Your task to perform on an android device: Show me popular videos on Youtube Image 0: 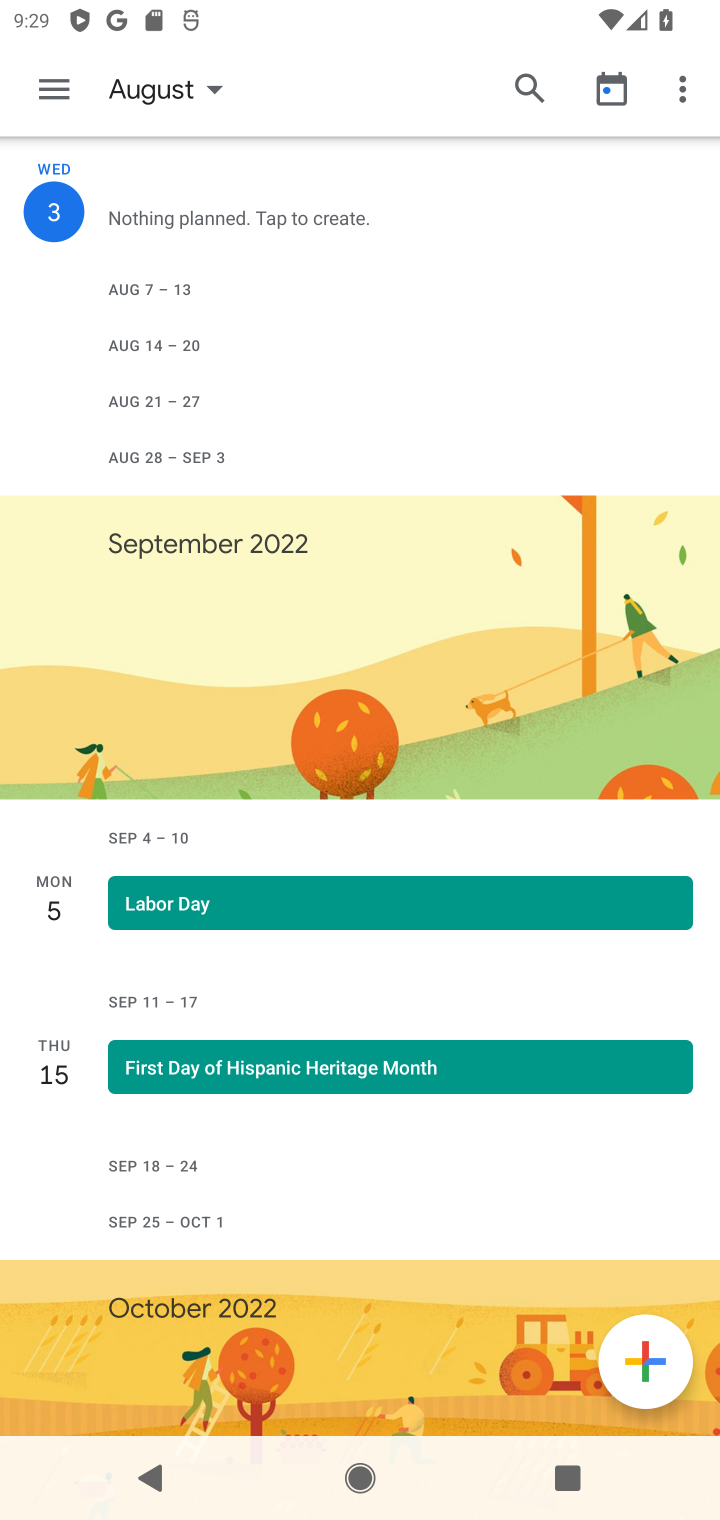
Step 0: press back button
Your task to perform on an android device: Show me popular videos on Youtube Image 1: 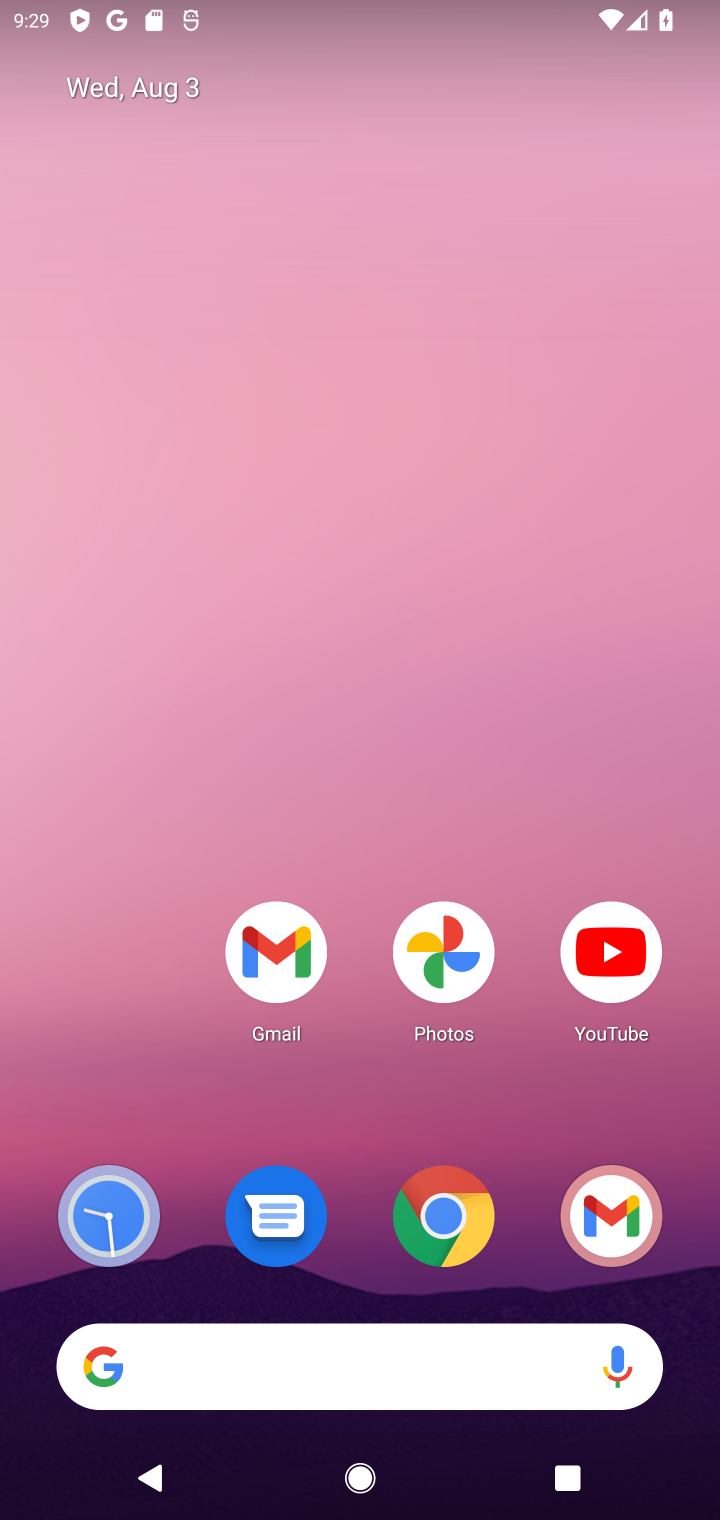
Step 1: click (632, 925)
Your task to perform on an android device: Show me popular videos on Youtube Image 2: 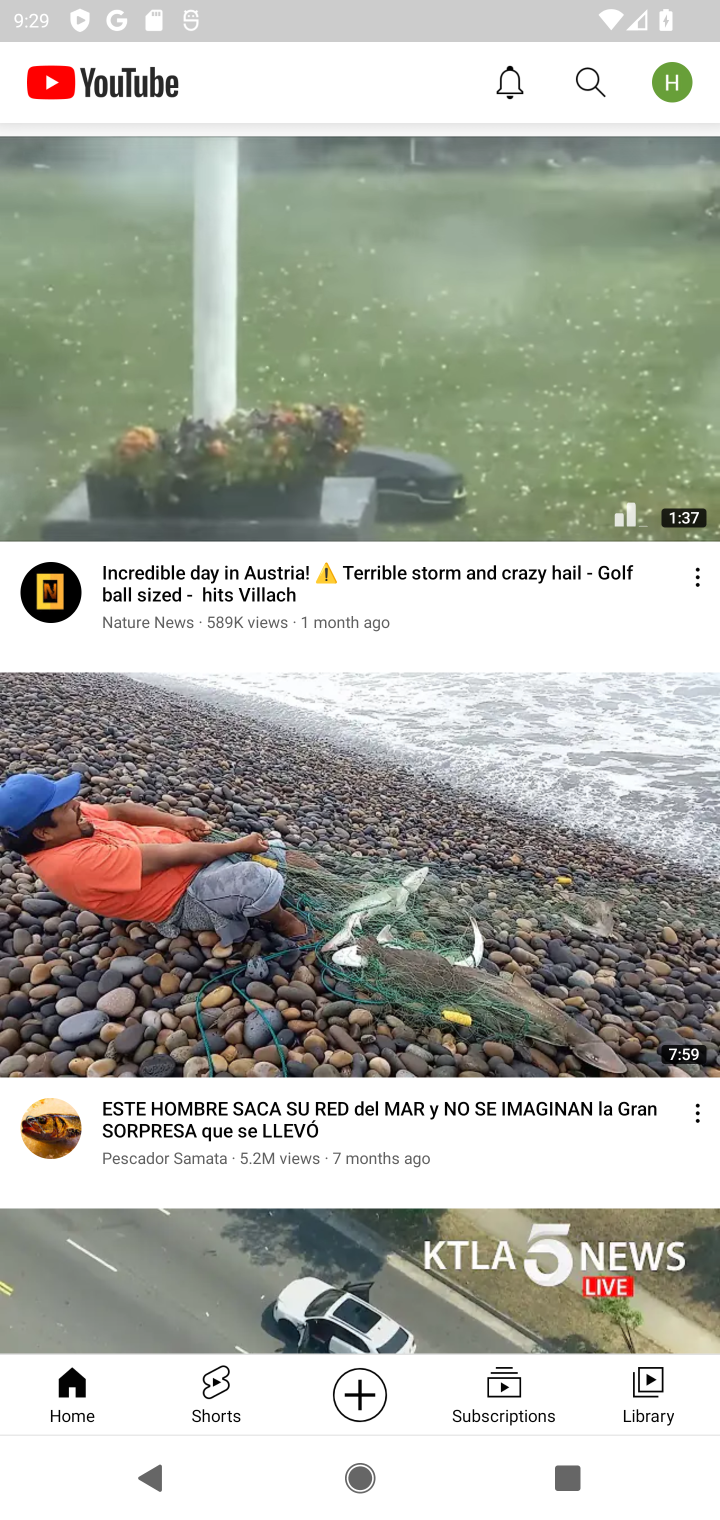
Step 2: drag from (256, 631) to (317, 1102)
Your task to perform on an android device: Show me popular videos on Youtube Image 3: 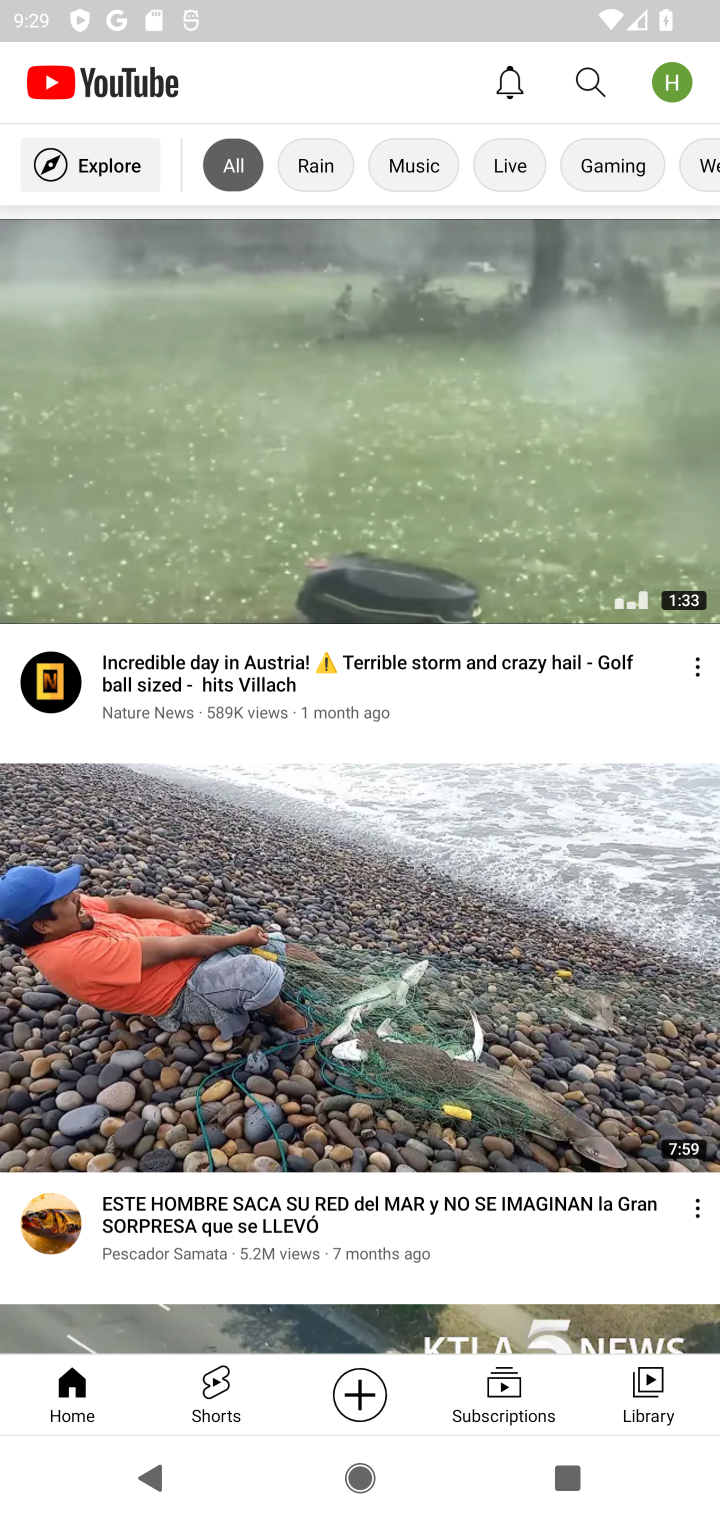
Step 3: click (85, 172)
Your task to perform on an android device: Show me popular videos on Youtube Image 4: 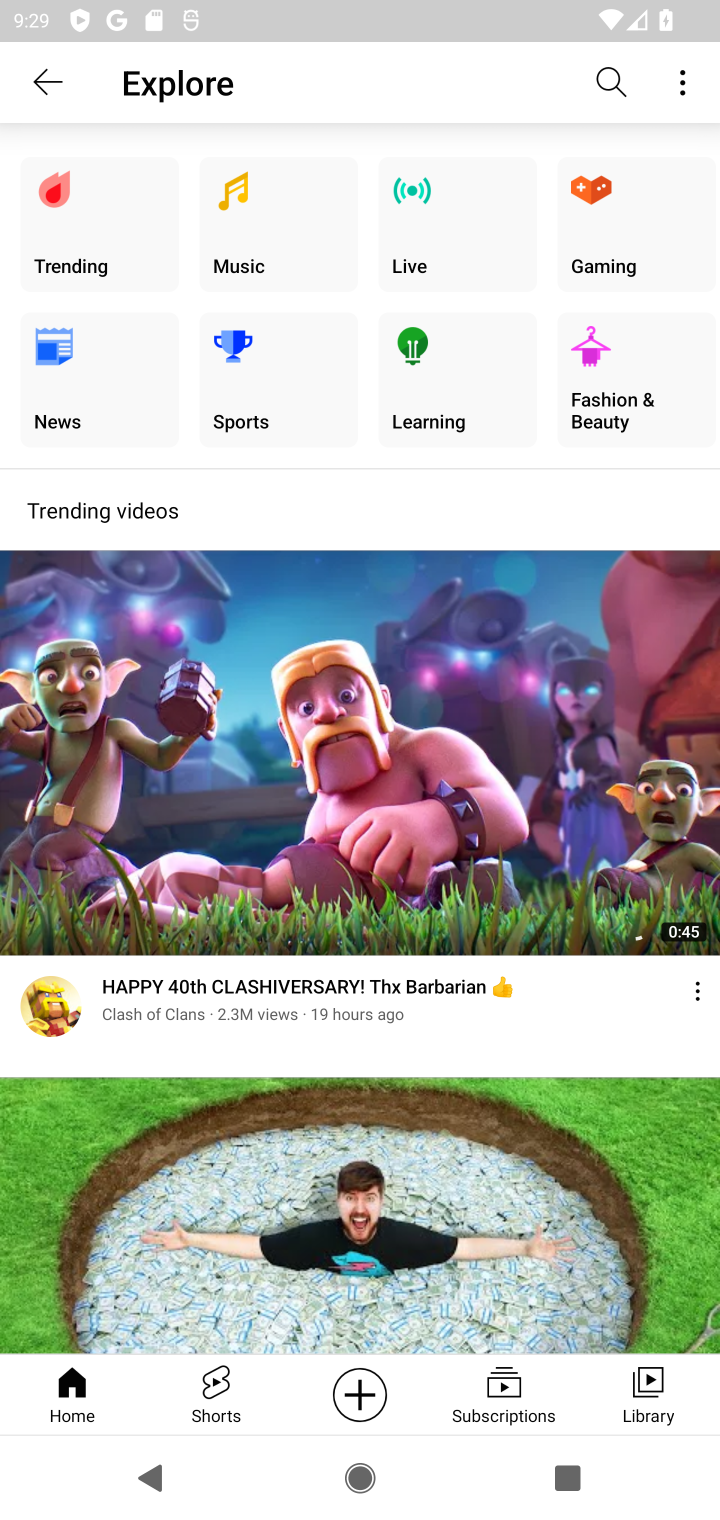
Step 4: click (94, 224)
Your task to perform on an android device: Show me popular videos on Youtube Image 5: 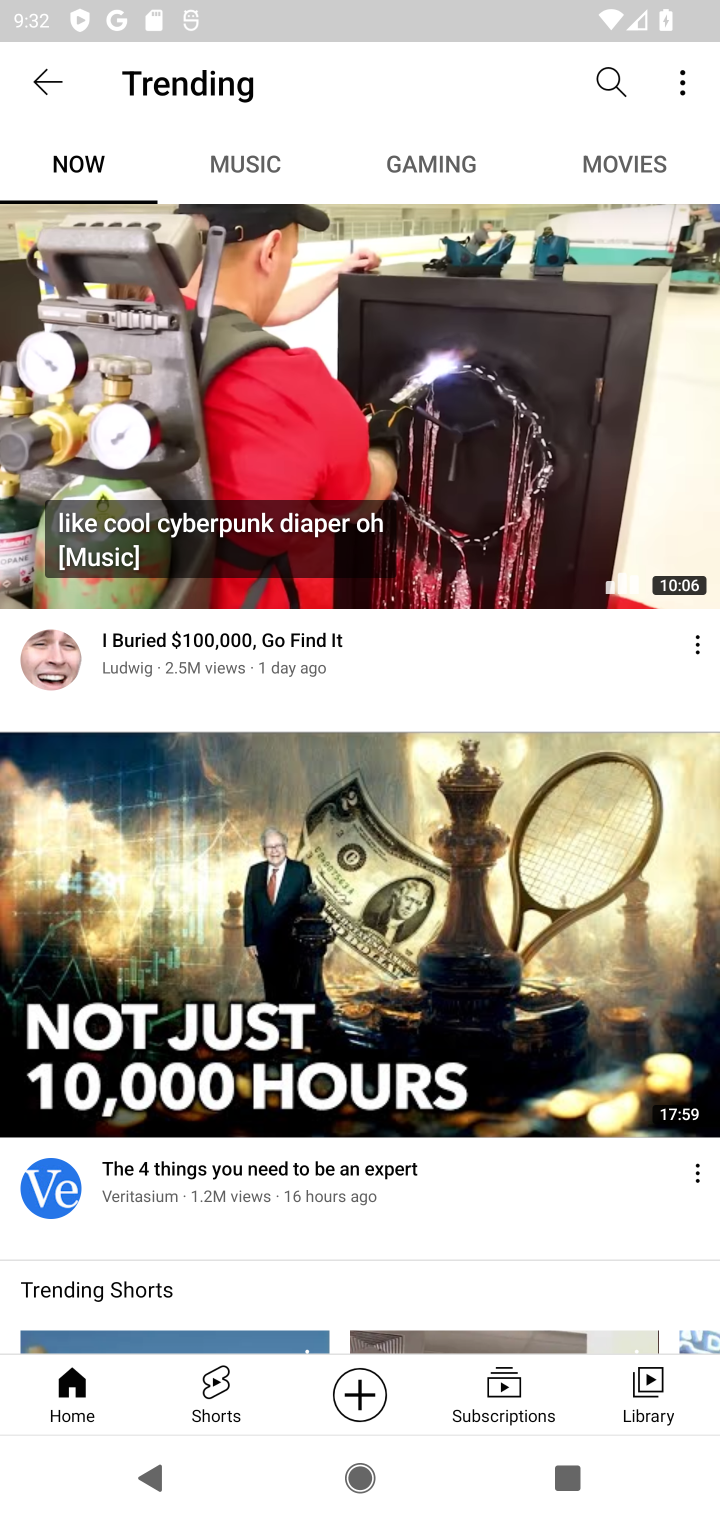
Step 5: task complete